Your task to perform on an android device: open app "Airtel Thanks" Image 0: 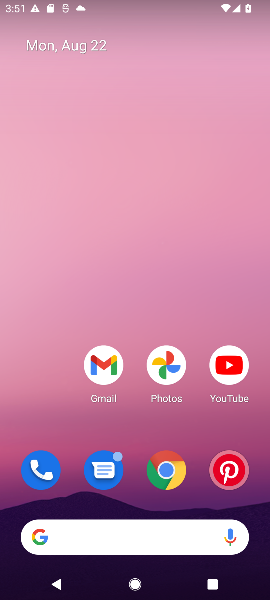
Step 0: drag from (117, 505) to (127, 59)
Your task to perform on an android device: open app "Airtel Thanks" Image 1: 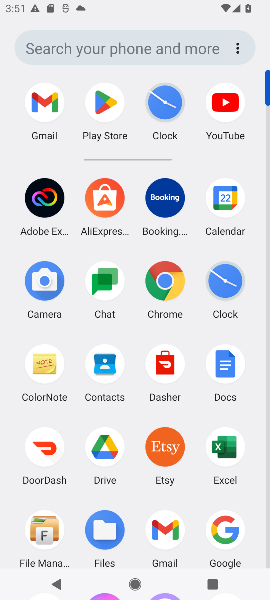
Step 1: click (93, 101)
Your task to perform on an android device: open app "Airtel Thanks" Image 2: 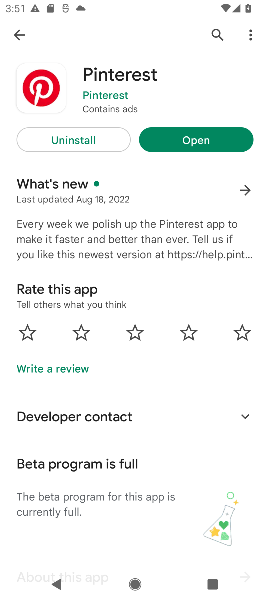
Step 2: click (15, 39)
Your task to perform on an android device: open app "Airtel Thanks" Image 3: 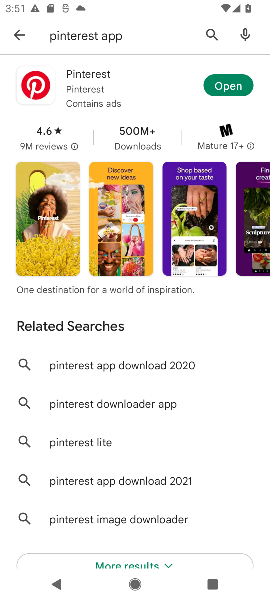
Step 3: click (14, 30)
Your task to perform on an android device: open app "Airtel Thanks" Image 4: 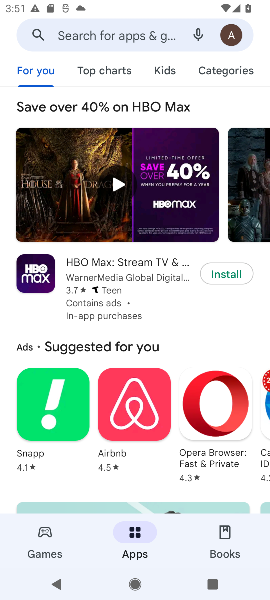
Step 4: click (93, 27)
Your task to perform on an android device: open app "Airtel Thanks" Image 5: 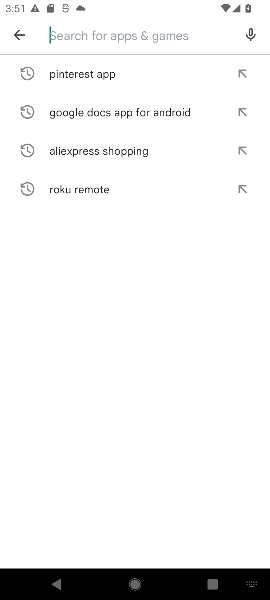
Step 5: type "Airtel Thanks "
Your task to perform on an android device: open app "Airtel Thanks" Image 6: 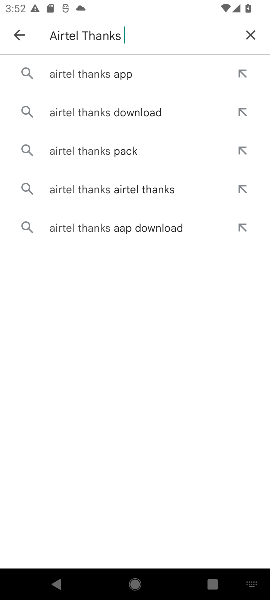
Step 6: click (51, 70)
Your task to perform on an android device: open app "Airtel Thanks" Image 7: 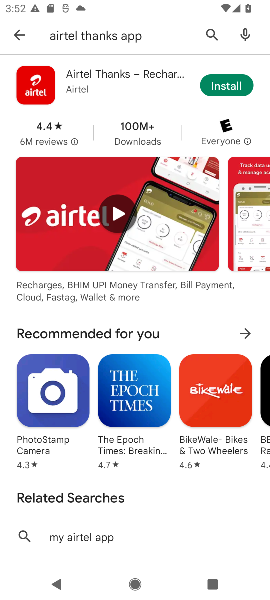
Step 7: click (235, 71)
Your task to perform on an android device: open app "Airtel Thanks" Image 8: 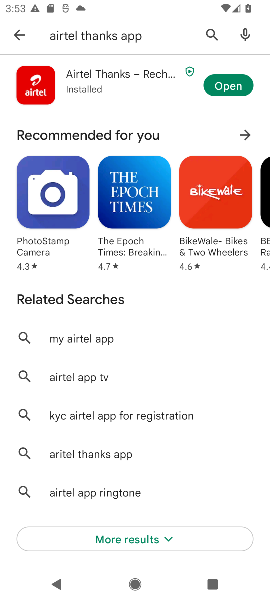
Step 8: click (237, 77)
Your task to perform on an android device: open app "Airtel Thanks" Image 9: 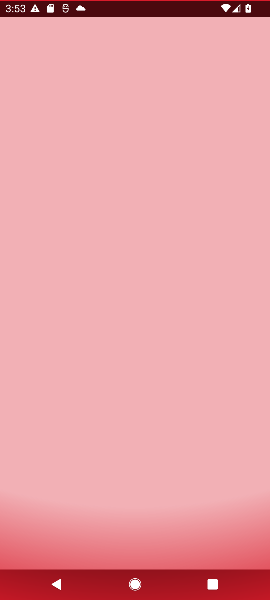
Step 9: task complete